Your task to perform on an android device: Go to settings Image 0: 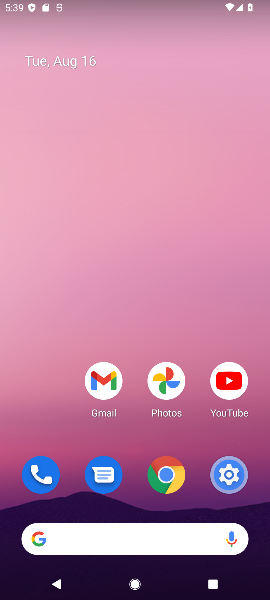
Step 0: drag from (195, 443) to (139, 24)
Your task to perform on an android device: Go to settings Image 1: 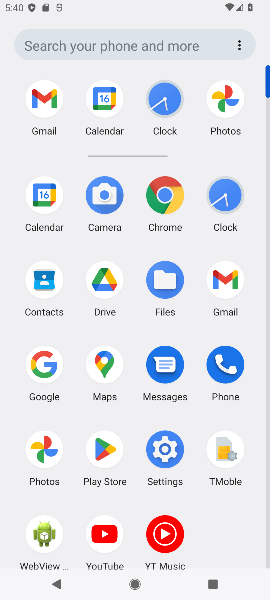
Step 1: click (151, 449)
Your task to perform on an android device: Go to settings Image 2: 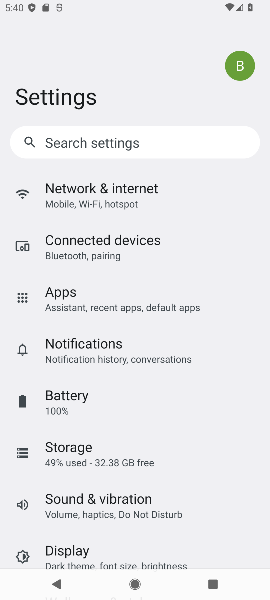
Step 2: task complete